Your task to perform on an android device: change the clock display to digital Image 0: 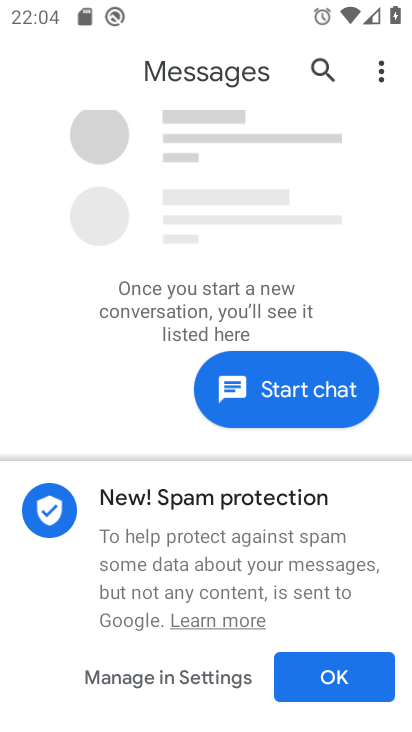
Step 0: press home button
Your task to perform on an android device: change the clock display to digital Image 1: 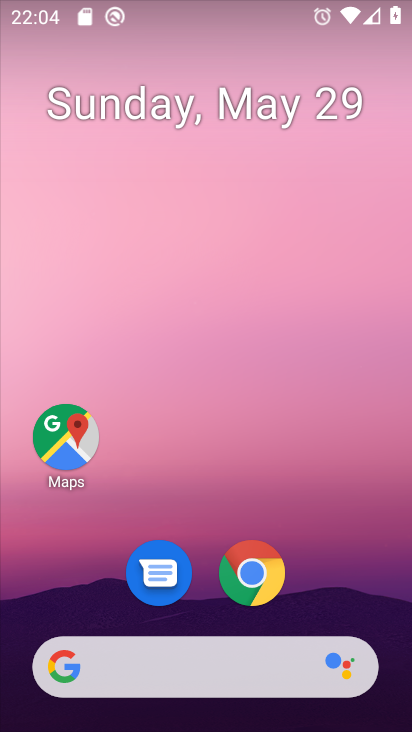
Step 1: drag from (256, 527) to (312, 37)
Your task to perform on an android device: change the clock display to digital Image 2: 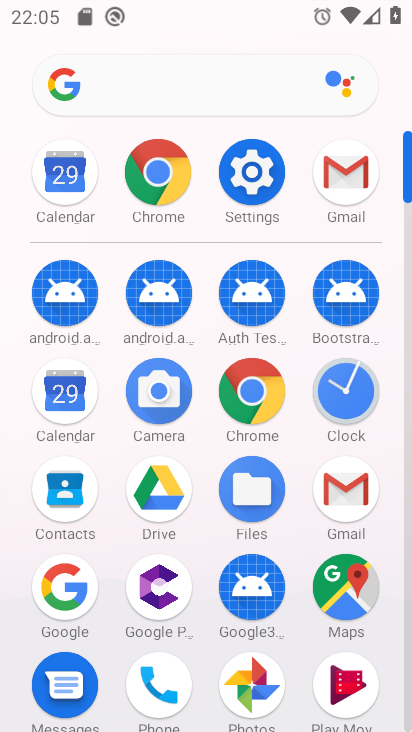
Step 2: click (347, 380)
Your task to perform on an android device: change the clock display to digital Image 3: 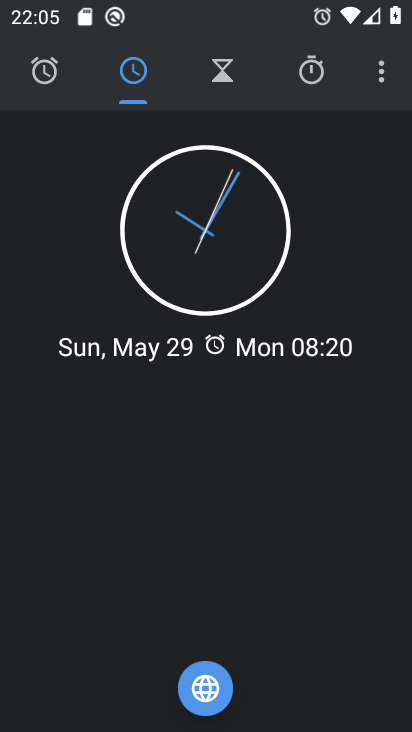
Step 3: click (386, 76)
Your task to perform on an android device: change the clock display to digital Image 4: 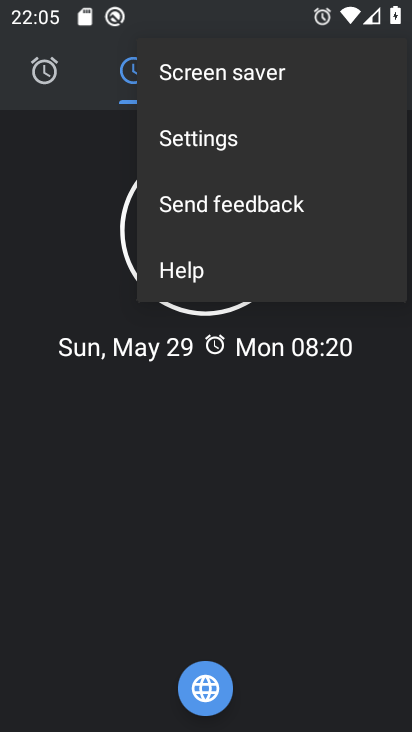
Step 4: click (292, 142)
Your task to perform on an android device: change the clock display to digital Image 5: 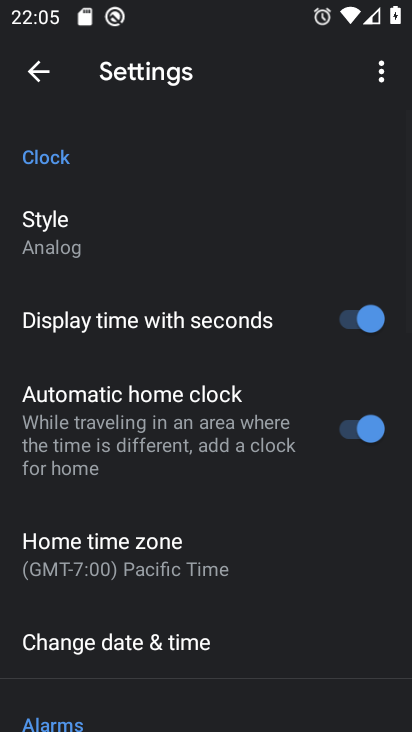
Step 5: click (228, 226)
Your task to perform on an android device: change the clock display to digital Image 6: 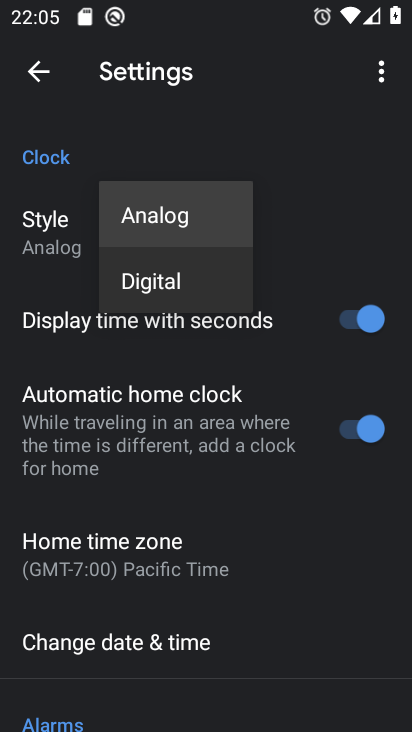
Step 6: click (213, 262)
Your task to perform on an android device: change the clock display to digital Image 7: 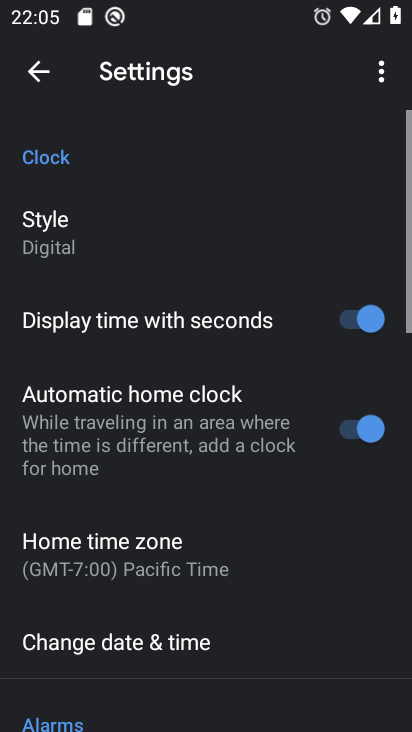
Step 7: click (36, 76)
Your task to perform on an android device: change the clock display to digital Image 8: 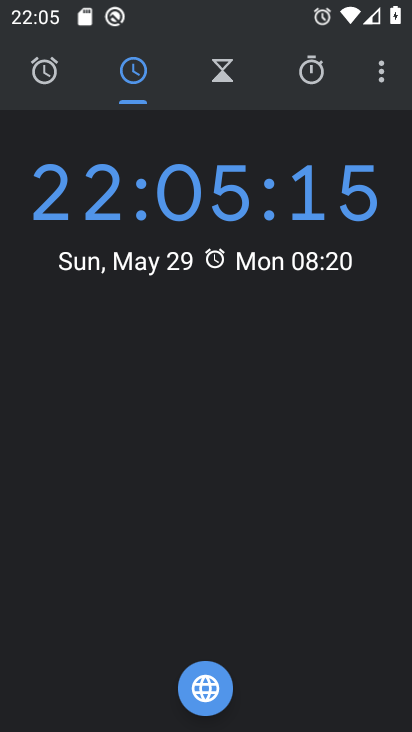
Step 8: task complete